Your task to perform on an android device: toggle airplane mode Image 0: 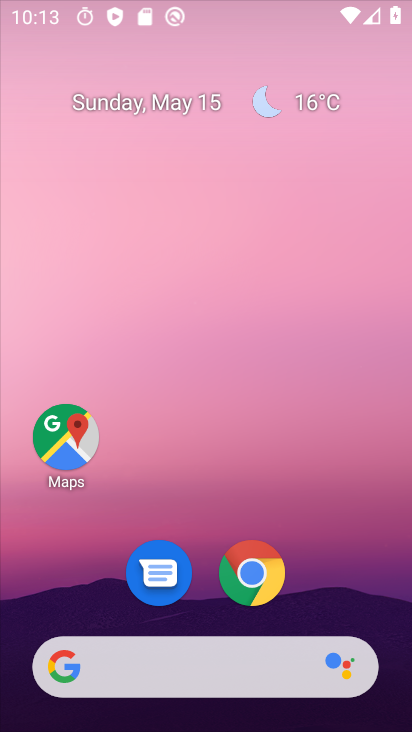
Step 0: drag from (323, 597) to (197, 51)
Your task to perform on an android device: toggle airplane mode Image 1: 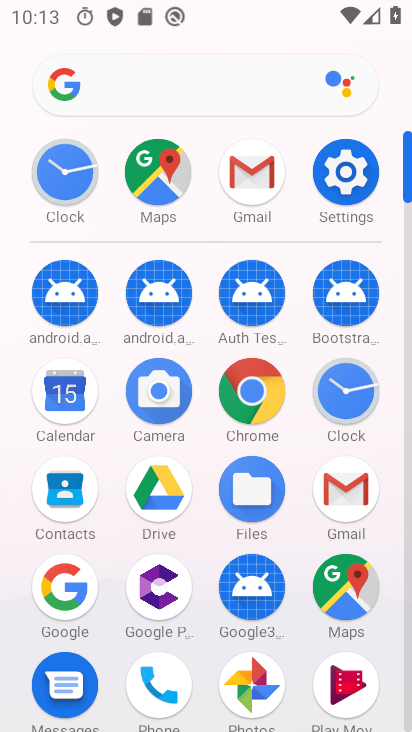
Step 1: click (343, 180)
Your task to perform on an android device: toggle airplane mode Image 2: 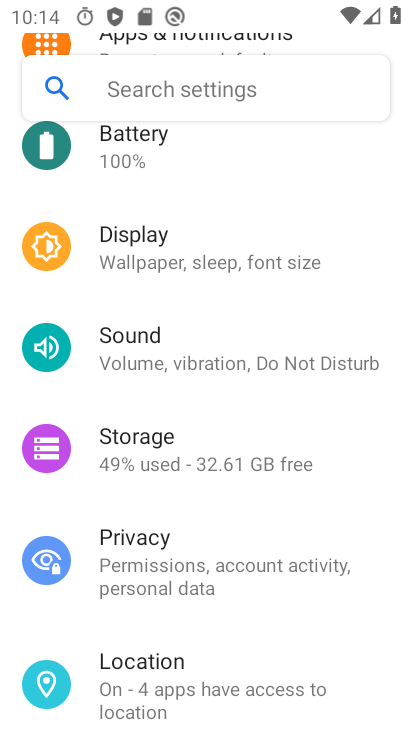
Step 2: click (107, 639)
Your task to perform on an android device: toggle airplane mode Image 3: 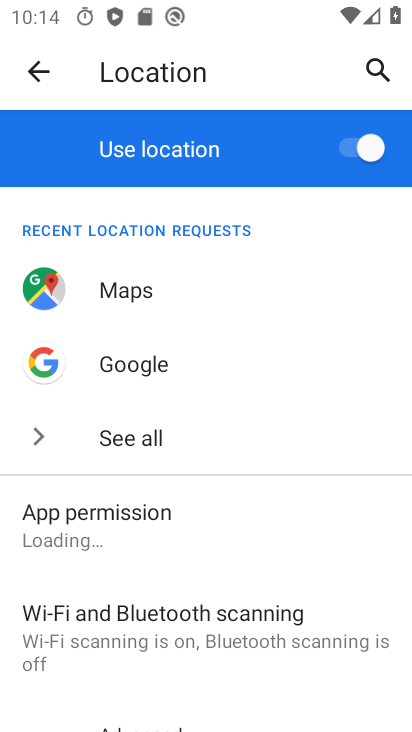
Step 3: click (30, 65)
Your task to perform on an android device: toggle airplane mode Image 4: 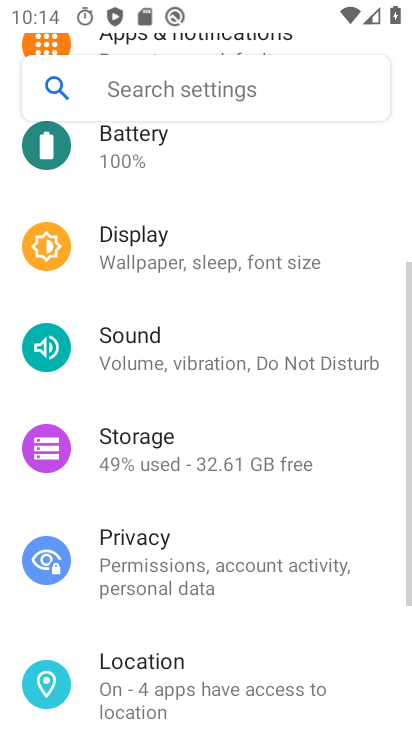
Step 4: drag from (193, 260) to (201, 633)
Your task to perform on an android device: toggle airplane mode Image 5: 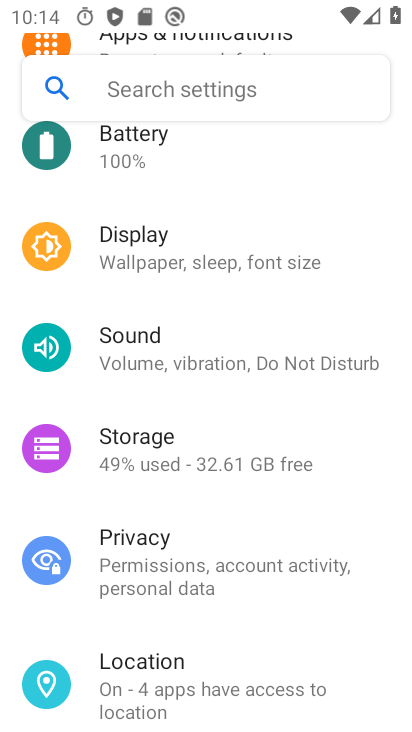
Step 5: drag from (189, 268) to (178, 599)
Your task to perform on an android device: toggle airplane mode Image 6: 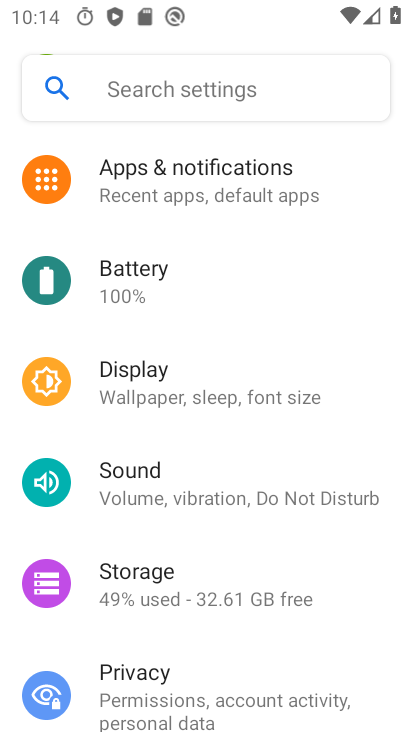
Step 6: drag from (184, 254) to (209, 524)
Your task to perform on an android device: toggle airplane mode Image 7: 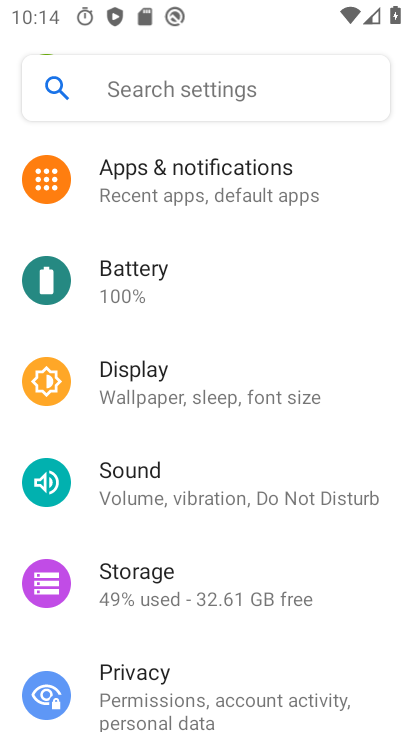
Step 7: drag from (190, 285) to (189, 706)
Your task to perform on an android device: toggle airplane mode Image 8: 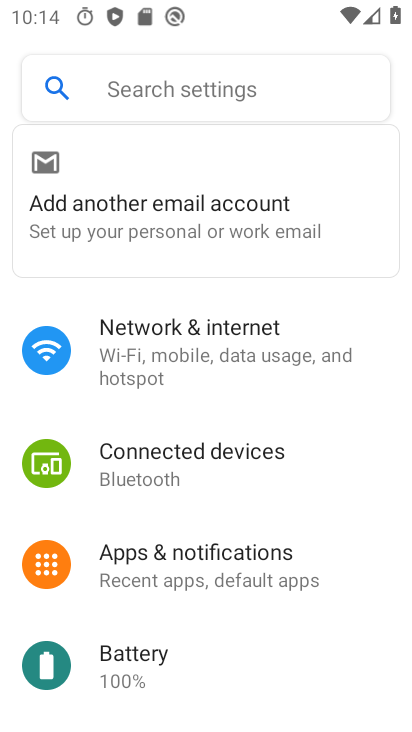
Step 8: click (176, 378)
Your task to perform on an android device: toggle airplane mode Image 9: 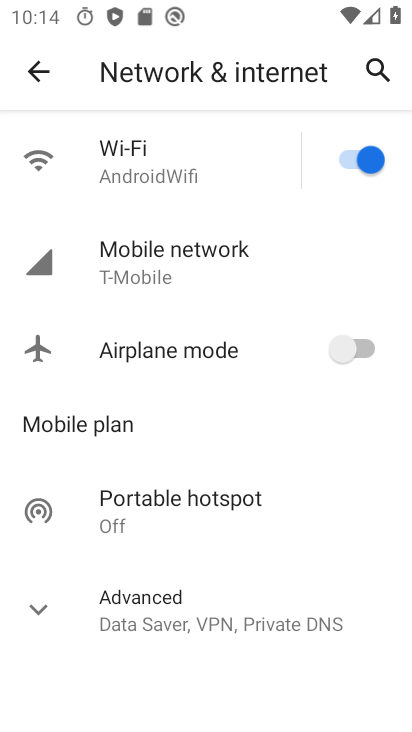
Step 9: click (369, 348)
Your task to perform on an android device: toggle airplane mode Image 10: 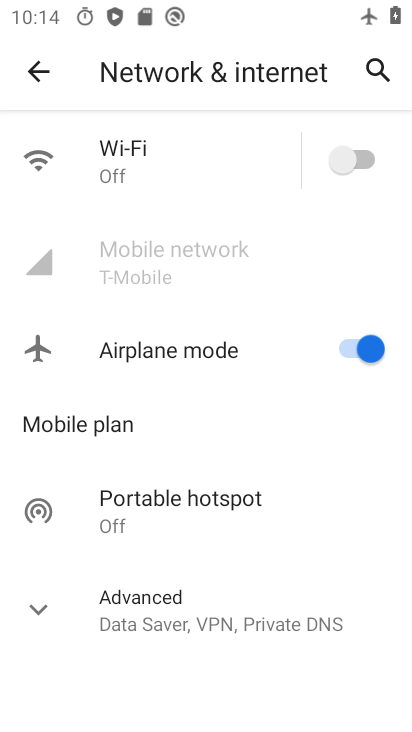
Step 10: task complete